Your task to perform on an android device: turn notification dots on Image 0: 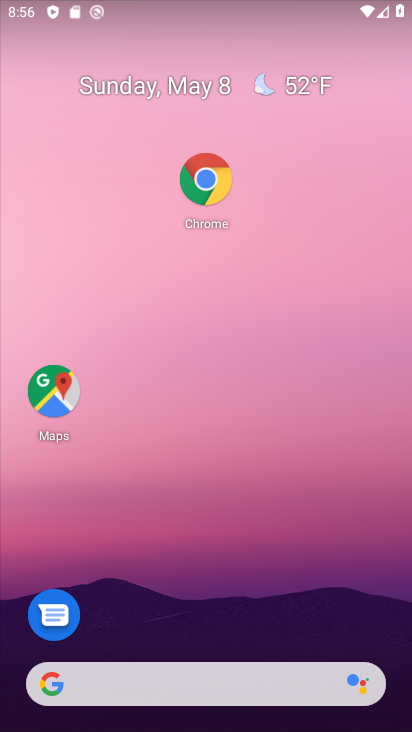
Step 0: drag from (195, 644) to (255, 303)
Your task to perform on an android device: turn notification dots on Image 1: 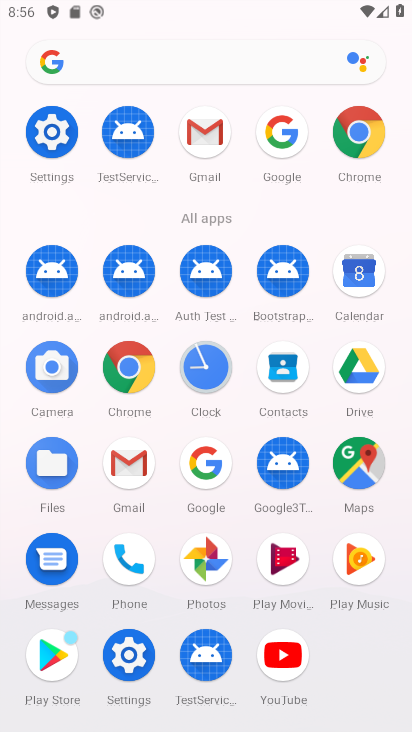
Step 1: click (54, 129)
Your task to perform on an android device: turn notification dots on Image 2: 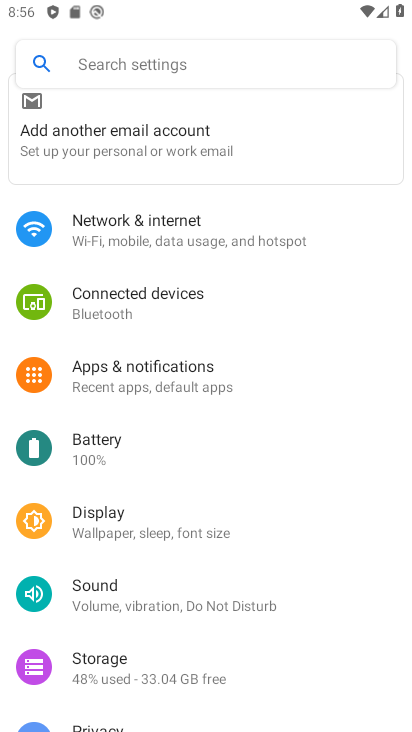
Step 2: click (117, 375)
Your task to perform on an android device: turn notification dots on Image 3: 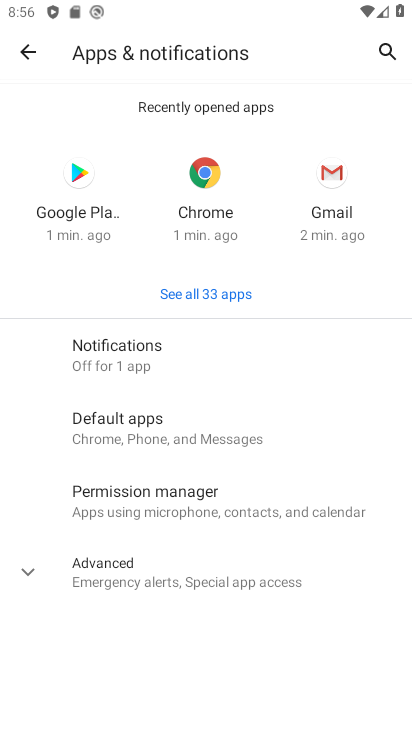
Step 3: click (118, 571)
Your task to perform on an android device: turn notification dots on Image 4: 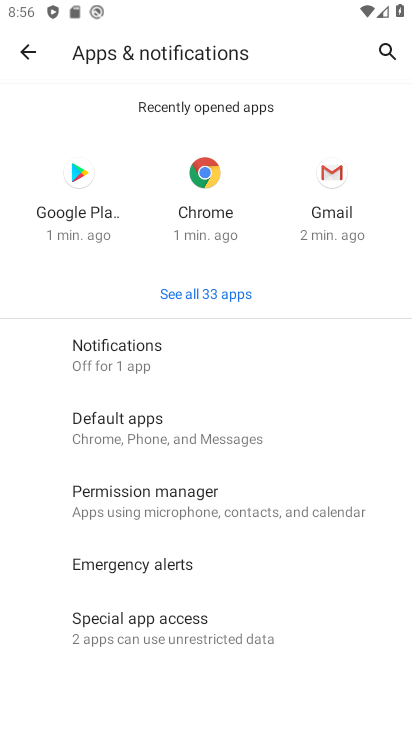
Step 4: click (109, 362)
Your task to perform on an android device: turn notification dots on Image 5: 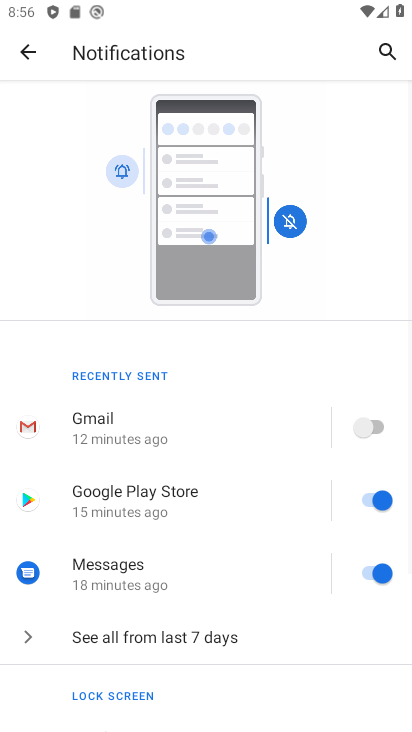
Step 5: drag from (152, 661) to (165, 300)
Your task to perform on an android device: turn notification dots on Image 6: 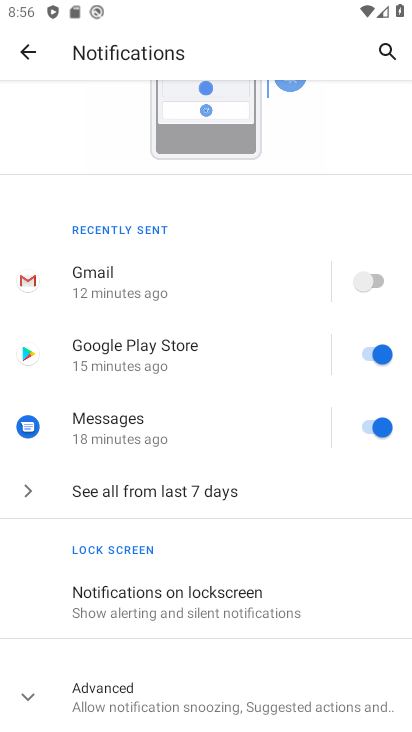
Step 6: click (102, 696)
Your task to perform on an android device: turn notification dots on Image 7: 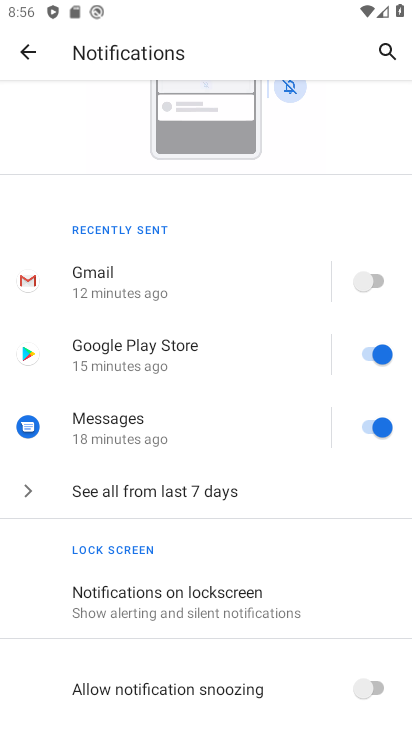
Step 7: task complete